Your task to perform on an android device: open sync settings in chrome Image 0: 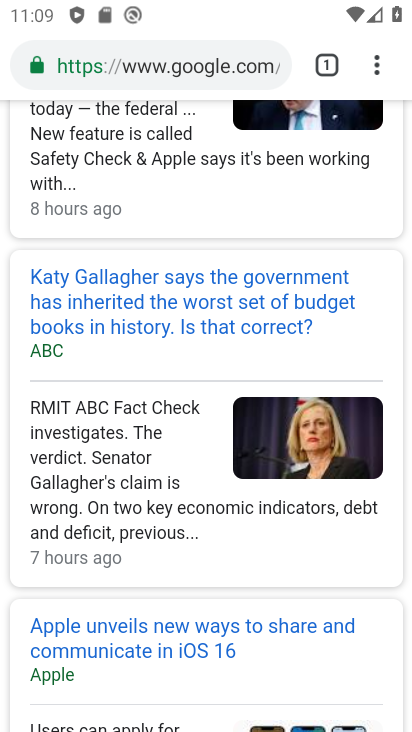
Step 0: drag from (367, 60) to (147, 619)
Your task to perform on an android device: open sync settings in chrome Image 1: 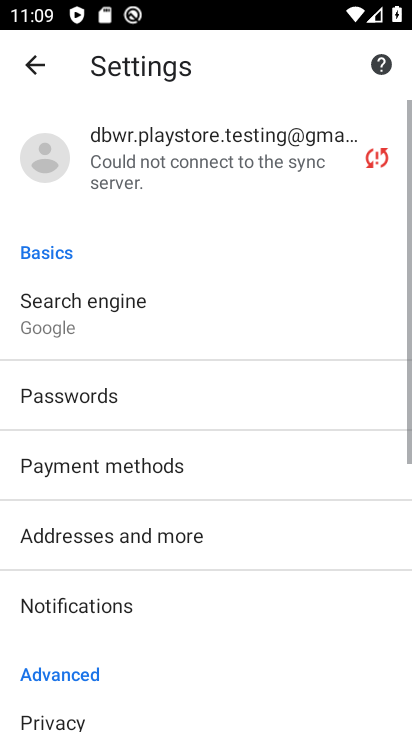
Step 1: click (152, 167)
Your task to perform on an android device: open sync settings in chrome Image 2: 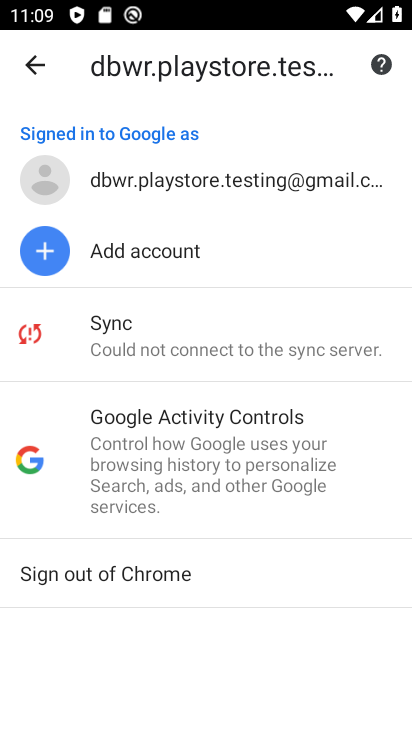
Step 2: click (200, 320)
Your task to perform on an android device: open sync settings in chrome Image 3: 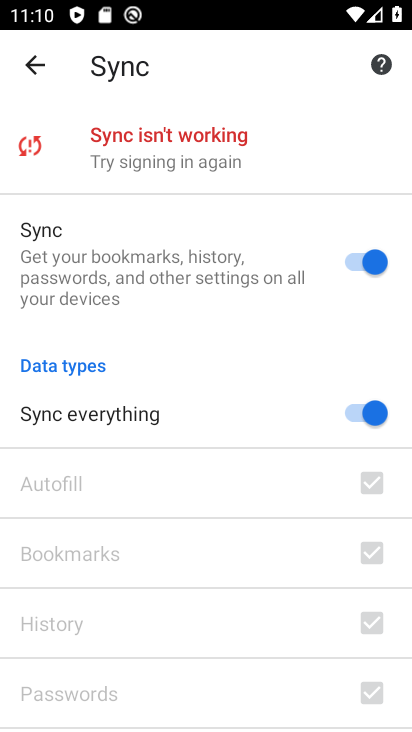
Step 3: task complete